Your task to perform on an android device: toggle priority inbox in the gmail app Image 0: 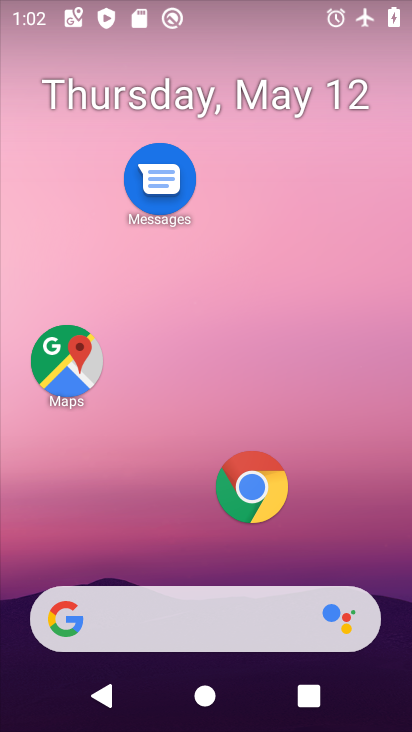
Step 0: drag from (174, 542) to (241, 287)
Your task to perform on an android device: toggle priority inbox in the gmail app Image 1: 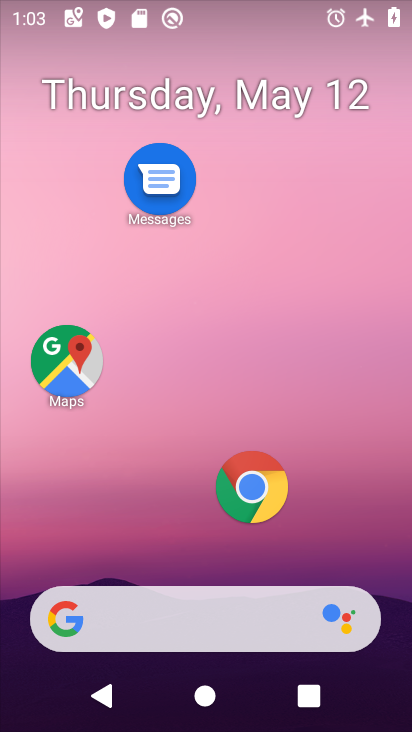
Step 1: drag from (209, 544) to (285, 124)
Your task to perform on an android device: toggle priority inbox in the gmail app Image 2: 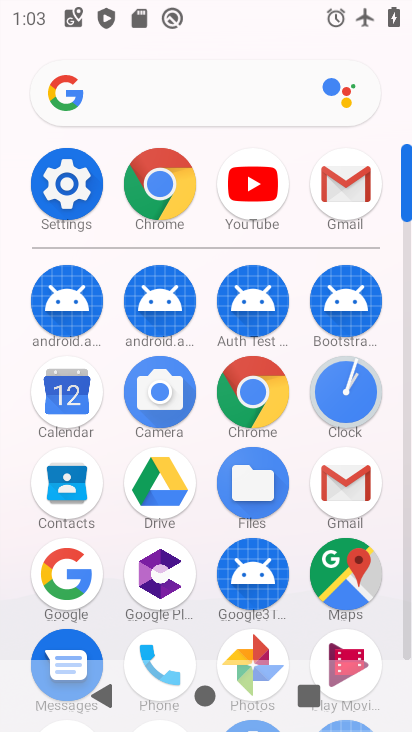
Step 2: click (326, 171)
Your task to perform on an android device: toggle priority inbox in the gmail app Image 3: 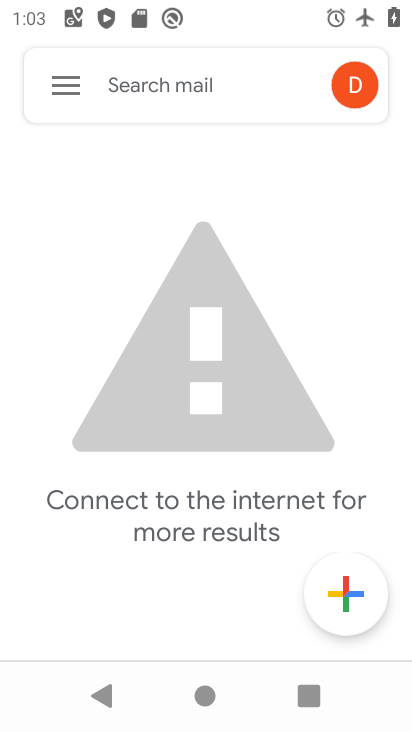
Step 3: click (66, 77)
Your task to perform on an android device: toggle priority inbox in the gmail app Image 4: 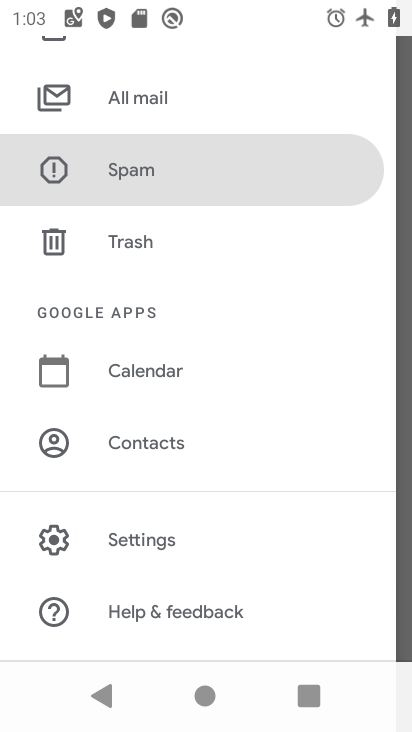
Step 4: click (137, 528)
Your task to perform on an android device: toggle priority inbox in the gmail app Image 5: 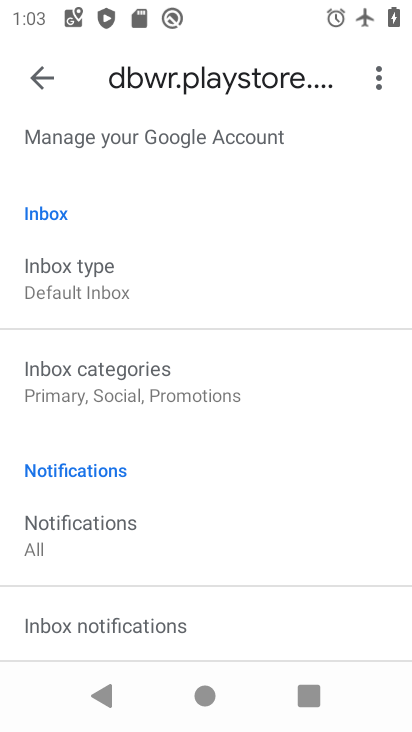
Step 5: drag from (165, 230) to (150, 550)
Your task to perform on an android device: toggle priority inbox in the gmail app Image 6: 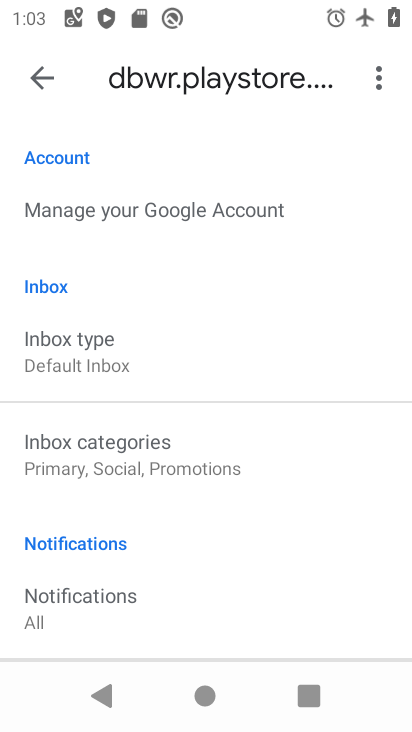
Step 6: click (149, 357)
Your task to perform on an android device: toggle priority inbox in the gmail app Image 7: 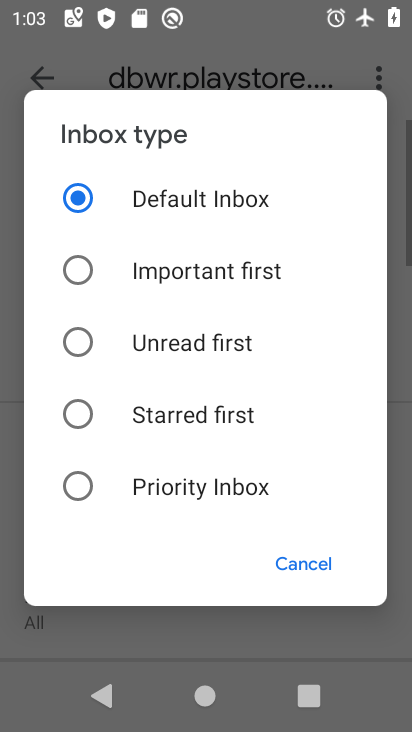
Step 7: click (128, 484)
Your task to perform on an android device: toggle priority inbox in the gmail app Image 8: 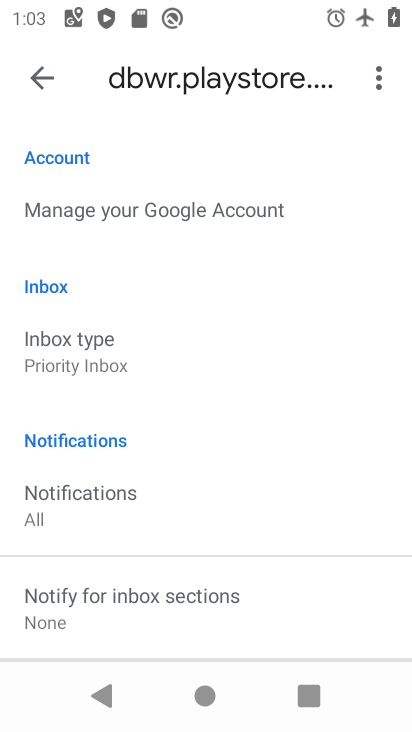
Step 8: task complete